Your task to perform on an android device: turn on showing notifications on the lock screen Image 0: 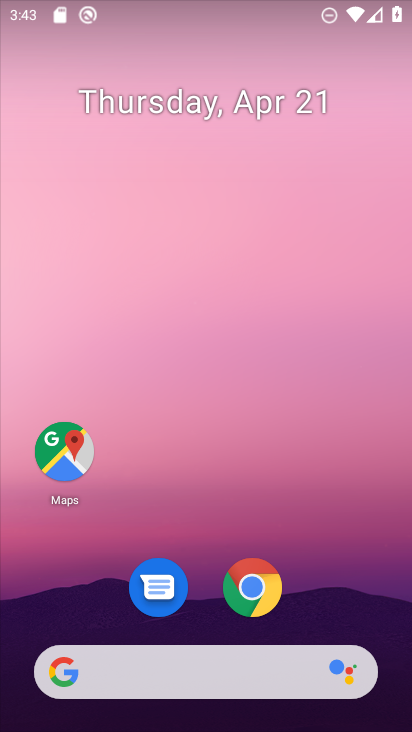
Step 0: drag from (353, 625) to (329, 3)
Your task to perform on an android device: turn on showing notifications on the lock screen Image 1: 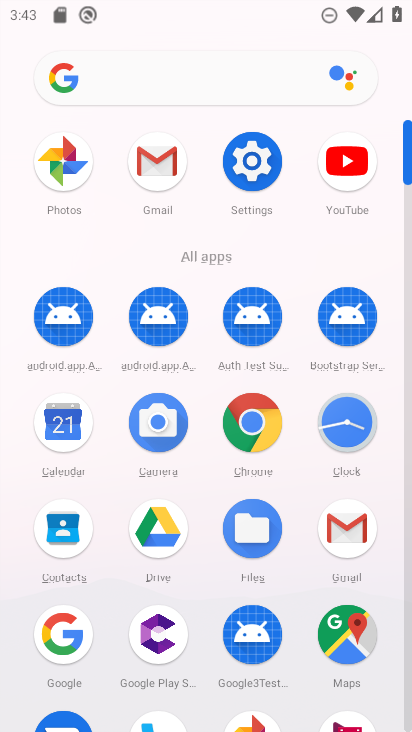
Step 1: click (254, 161)
Your task to perform on an android device: turn on showing notifications on the lock screen Image 2: 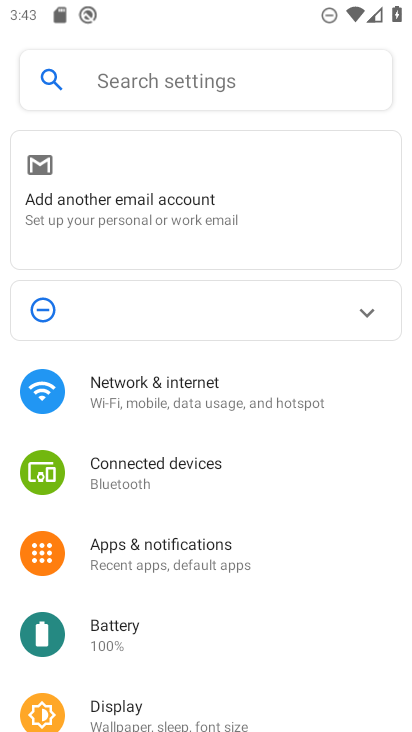
Step 2: click (136, 570)
Your task to perform on an android device: turn on showing notifications on the lock screen Image 3: 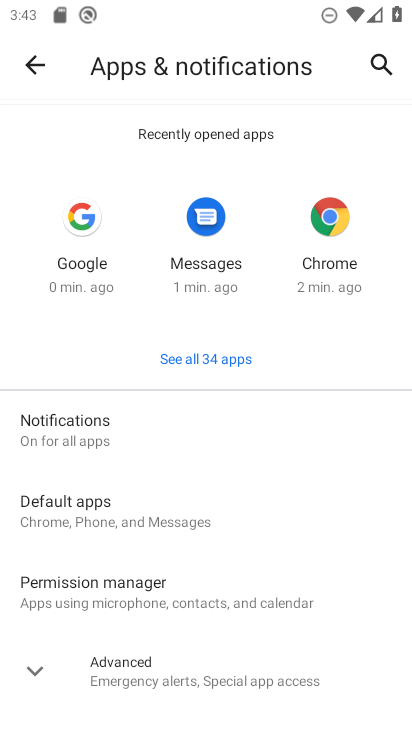
Step 3: click (56, 426)
Your task to perform on an android device: turn on showing notifications on the lock screen Image 4: 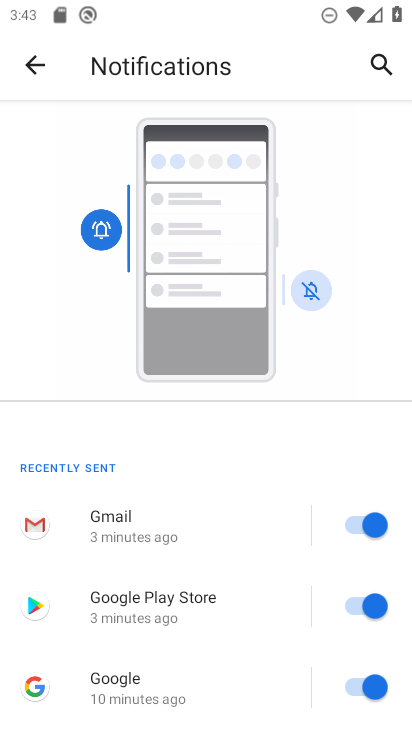
Step 4: drag from (191, 606) to (150, 11)
Your task to perform on an android device: turn on showing notifications on the lock screen Image 5: 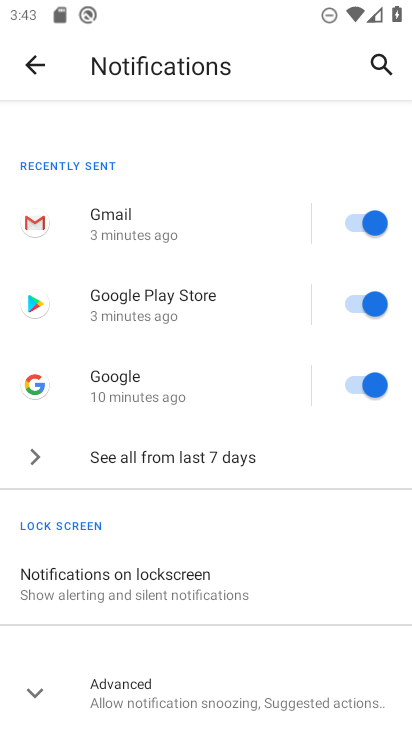
Step 5: click (104, 593)
Your task to perform on an android device: turn on showing notifications on the lock screen Image 6: 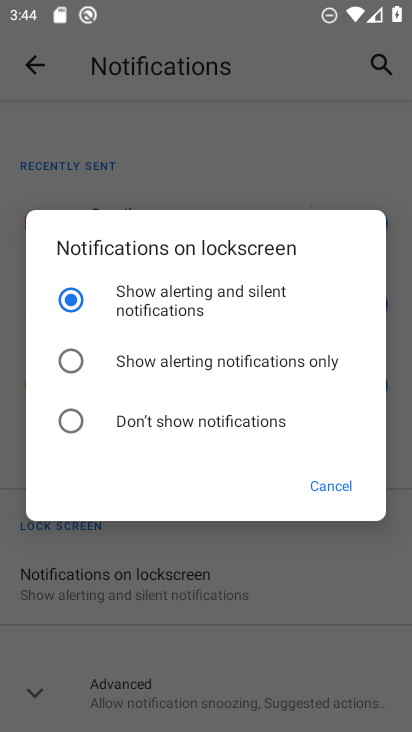
Step 6: task complete